Your task to perform on an android device: Open Chrome and go to settings Image 0: 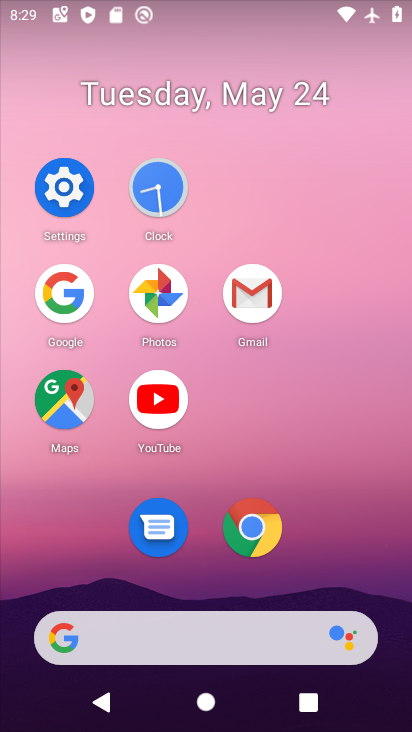
Step 0: click (272, 525)
Your task to perform on an android device: Open Chrome and go to settings Image 1: 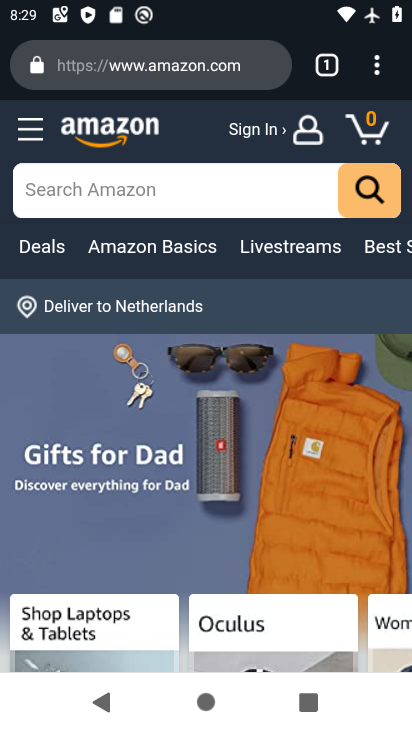
Step 1: click (374, 59)
Your task to perform on an android device: Open Chrome and go to settings Image 2: 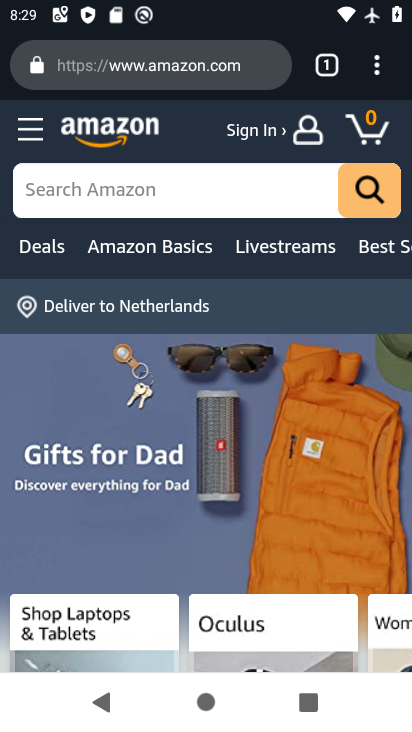
Step 2: click (388, 96)
Your task to perform on an android device: Open Chrome and go to settings Image 3: 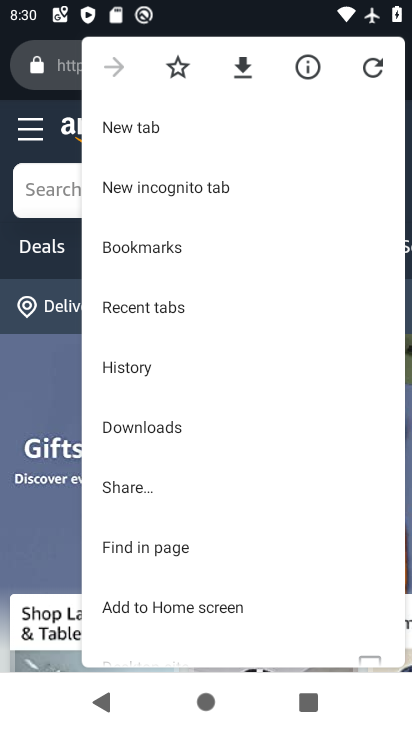
Step 3: drag from (180, 452) to (195, 207)
Your task to perform on an android device: Open Chrome and go to settings Image 4: 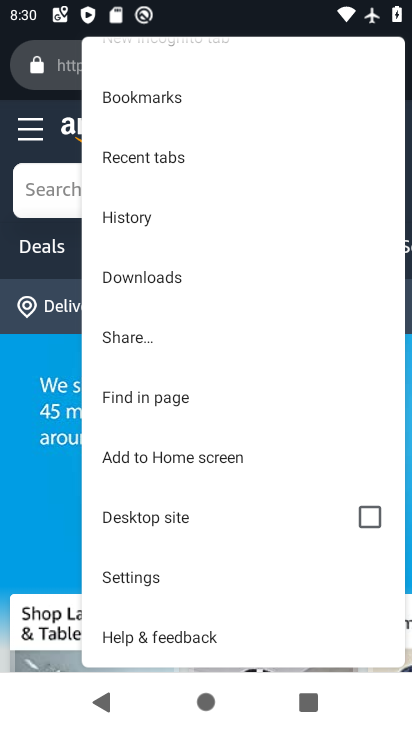
Step 4: click (166, 583)
Your task to perform on an android device: Open Chrome and go to settings Image 5: 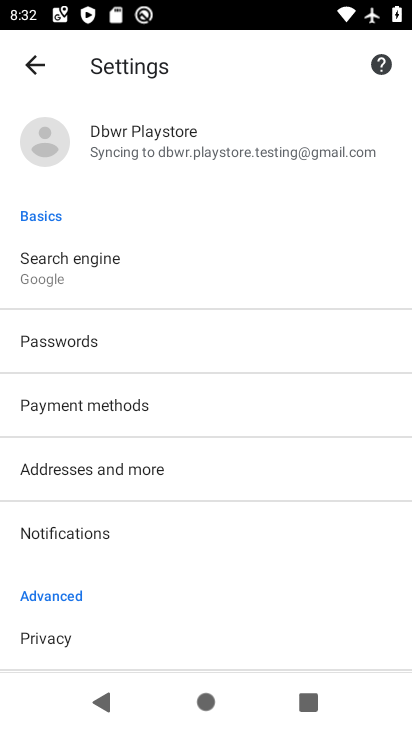
Step 5: task complete